Your task to perform on an android device: turn smart compose on in the gmail app Image 0: 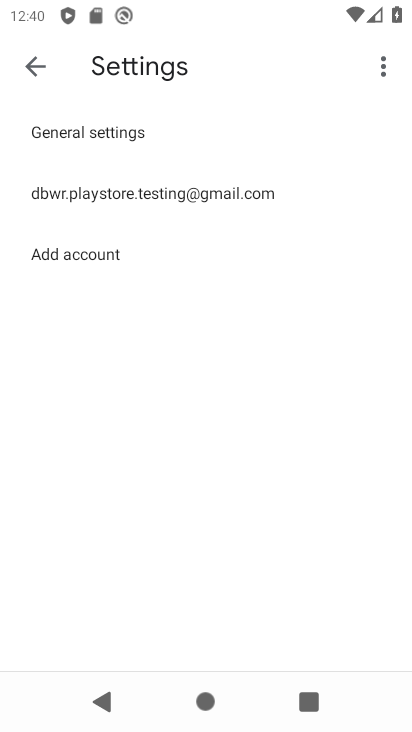
Step 0: press home button
Your task to perform on an android device: turn smart compose on in the gmail app Image 1: 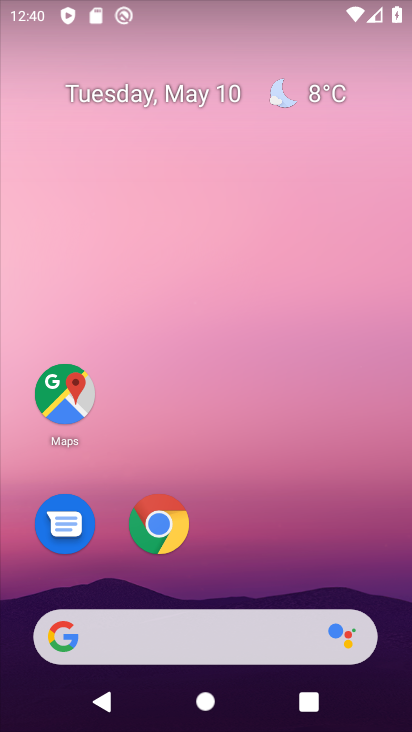
Step 1: drag from (234, 539) to (261, 91)
Your task to perform on an android device: turn smart compose on in the gmail app Image 2: 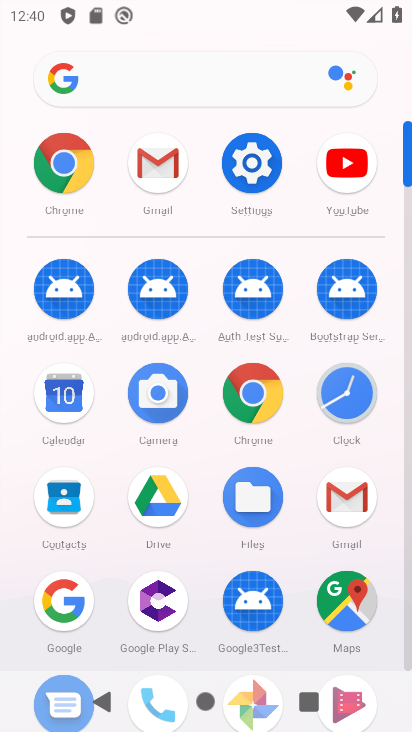
Step 2: click (160, 184)
Your task to perform on an android device: turn smart compose on in the gmail app Image 3: 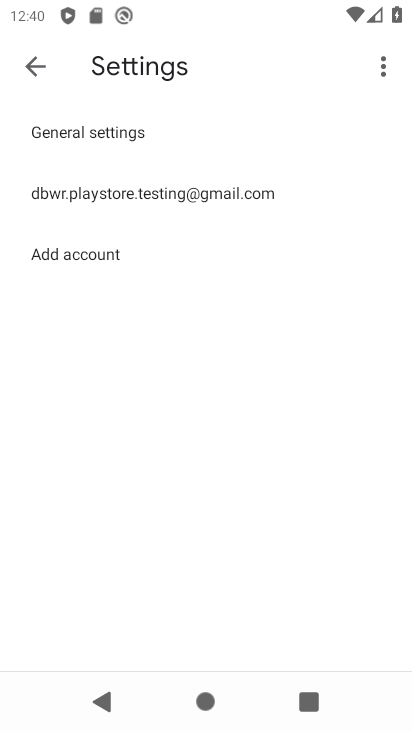
Step 3: click (160, 185)
Your task to perform on an android device: turn smart compose on in the gmail app Image 4: 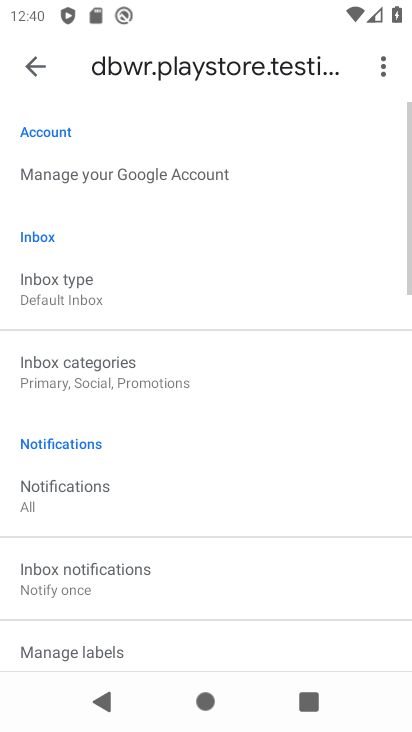
Step 4: task complete